Your task to perform on an android device: Open Chrome and go to the settings page Image 0: 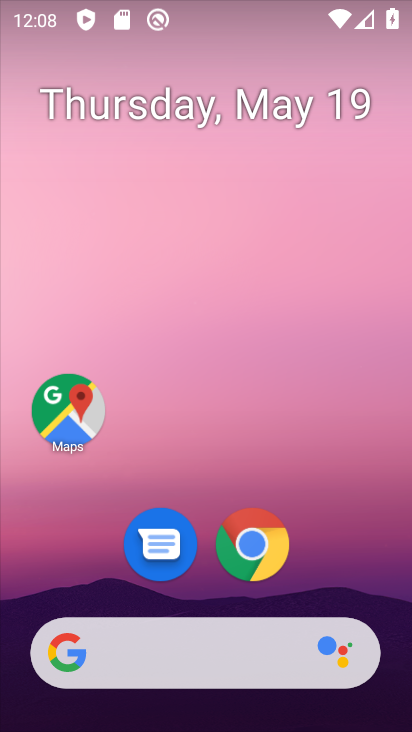
Step 0: click (270, 547)
Your task to perform on an android device: Open Chrome and go to the settings page Image 1: 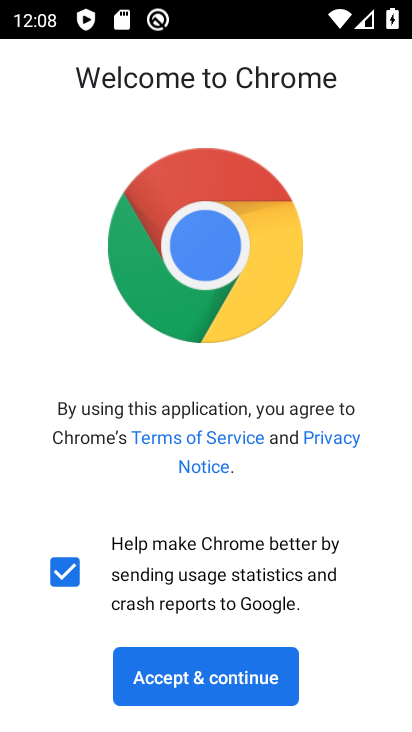
Step 1: click (246, 678)
Your task to perform on an android device: Open Chrome and go to the settings page Image 2: 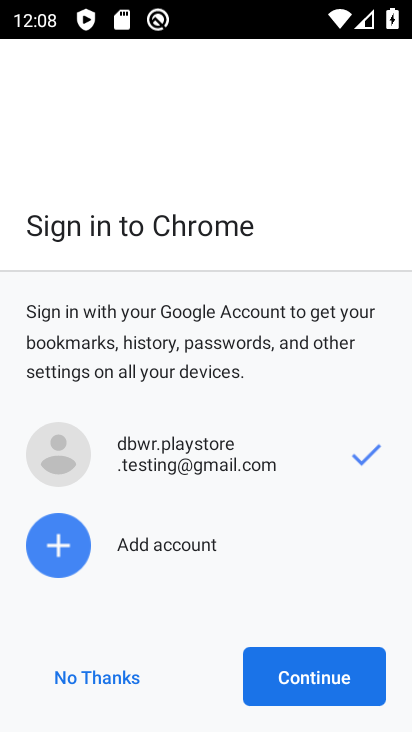
Step 2: click (246, 678)
Your task to perform on an android device: Open Chrome and go to the settings page Image 3: 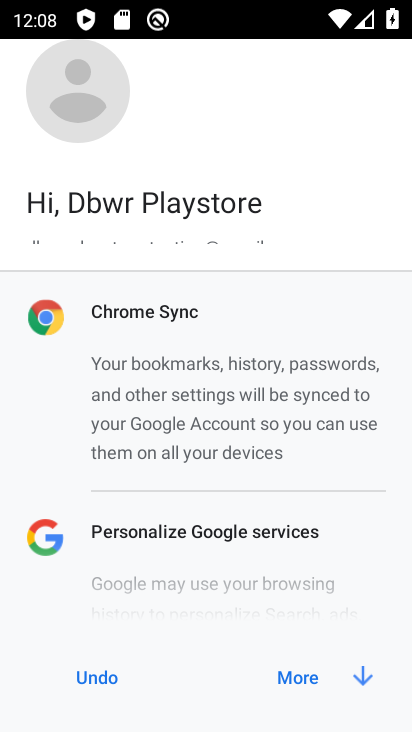
Step 3: click (287, 678)
Your task to perform on an android device: Open Chrome and go to the settings page Image 4: 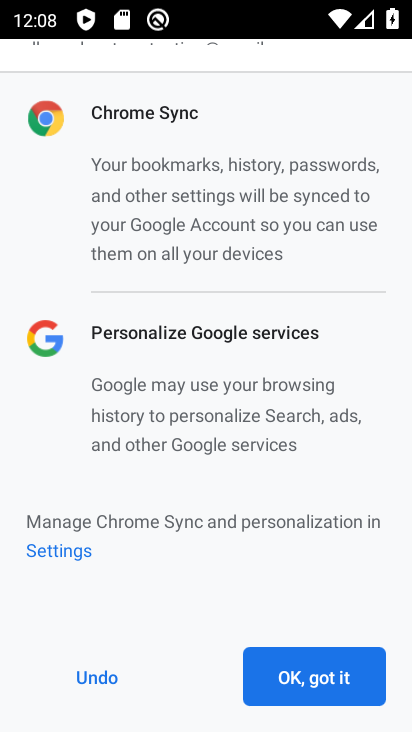
Step 4: click (287, 678)
Your task to perform on an android device: Open Chrome and go to the settings page Image 5: 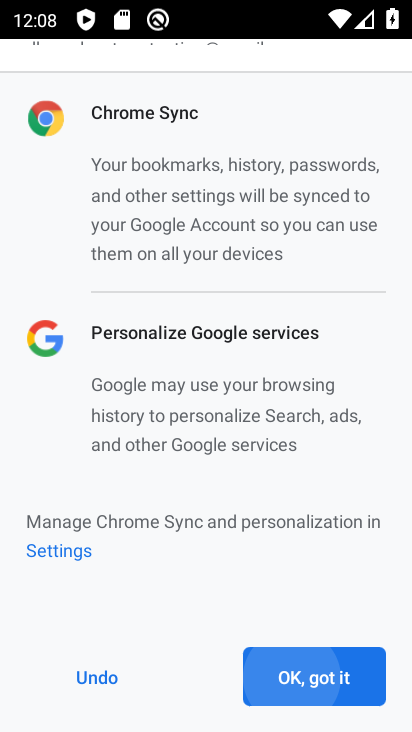
Step 5: click (287, 678)
Your task to perform on an android device: Open Chrome and go to the settings page Image 6: 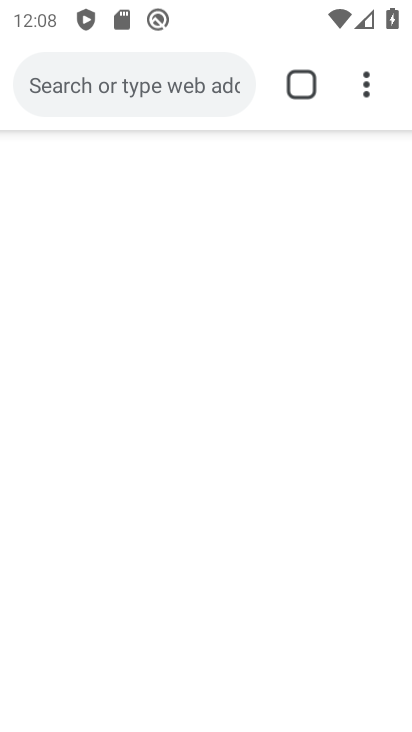
Step 6: click (287, 678)
Your task to perform on an android device: Open Chrome and go to the settings page Image 7: 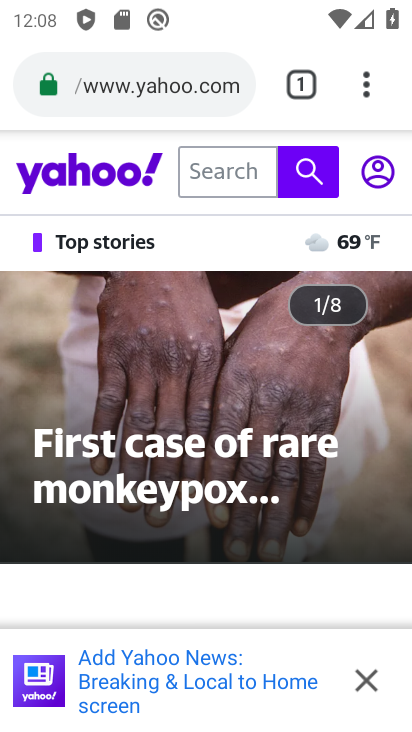
Step 7: click (369, 90)
Your task to perform on an android device: Open Chrome and go to the settings page Image 8: 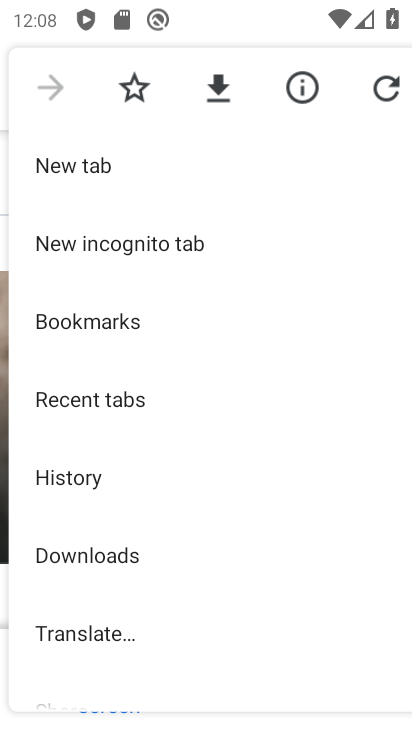
Step 8: drag from (136, 598) to (105, 365)
Your task to perform on an android device: Open Chrome and go to the settings page Image 9: 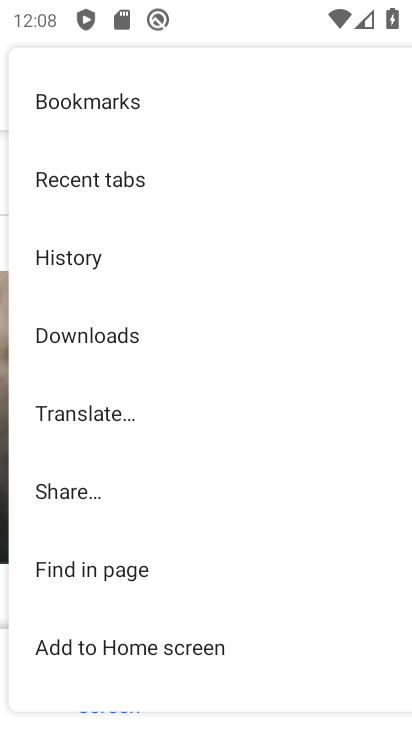
Step 9: drag from (124, 699) to (110, 434)
Your task to perform on an android device: Open Chrome and go to the settings page Image 10: 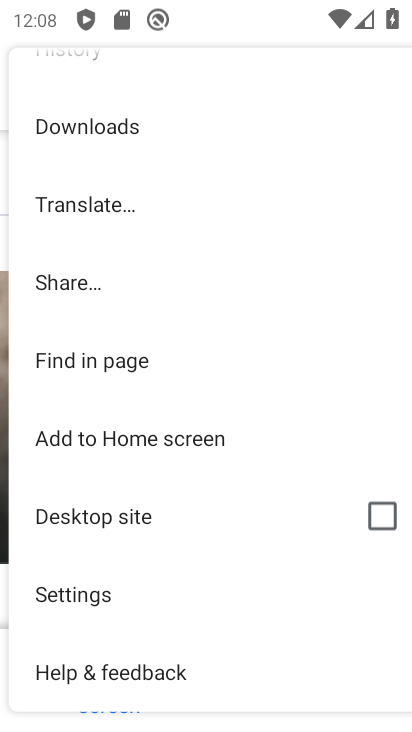
Step 10: click (115, 581)
Your task to perform on an android device: Open Chrome and go to the settings page Image 11: 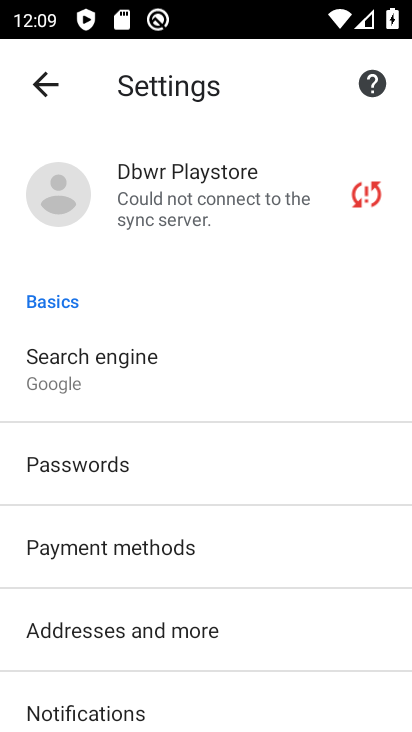
Step 11: task complete